Your task to perform on an android device: check the backup settings in the google photos Image 0: 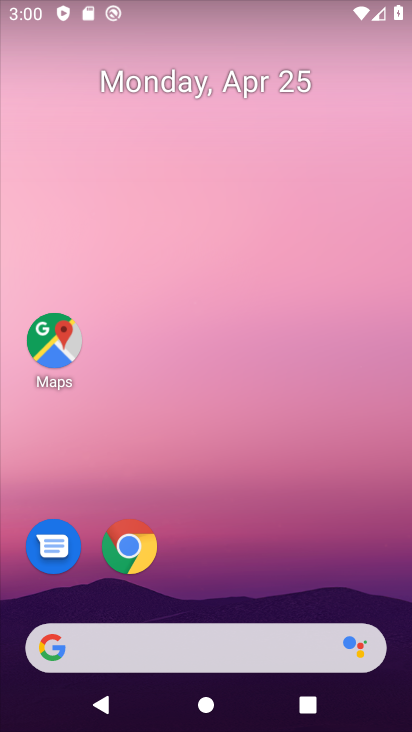
Step 0: drag from (228, 583) to (240, 55)
Your task to perform on an android device: check the backup settings in the google photos Image 1: 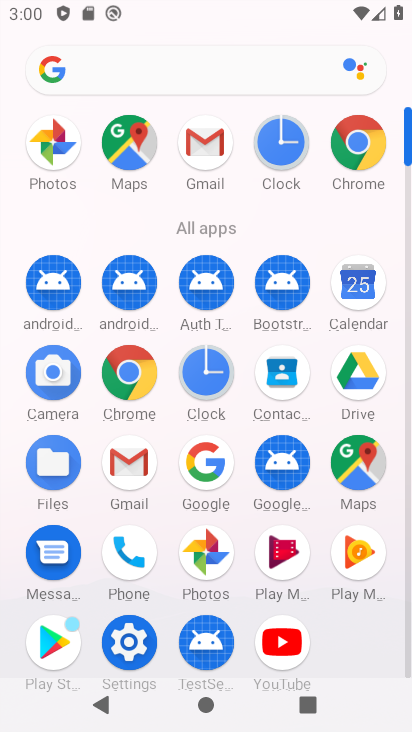
Step 1: click (51, 134)
Your task to perform on an android device: check the backup settings in the google photos Image 2: 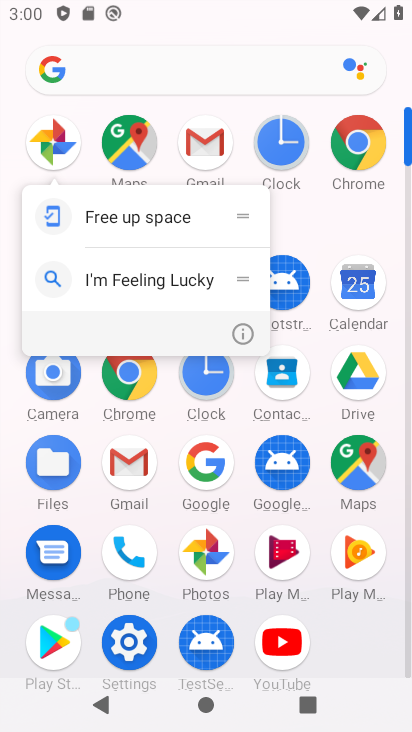
Step 2: click (53, 123)
Your task to perform on an android device: check the backup settings in the google photos Image 3: 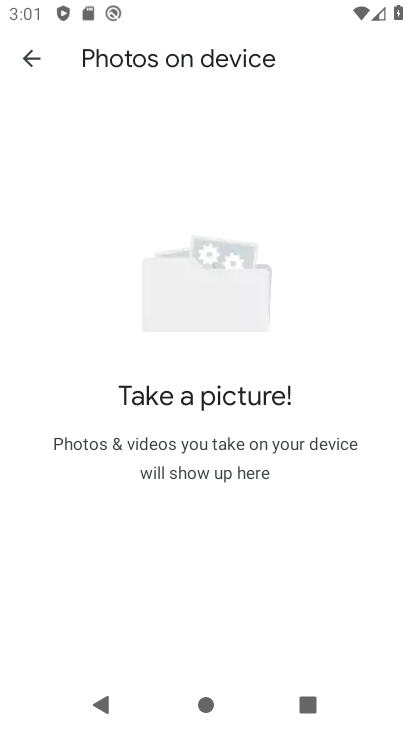
Step 3: click (27, 51)
Your task to perform on an android device: check the backup settings in the google photos Image 4: 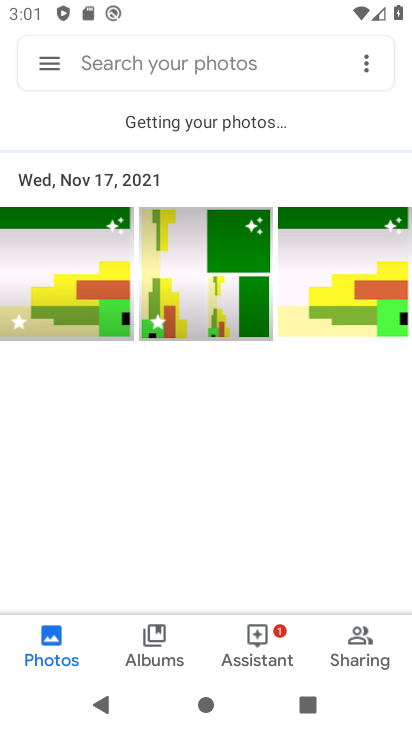
Step 4: click (42, 65)
Your task to perform on an android device: check the backup settings in the google photos Image 5: 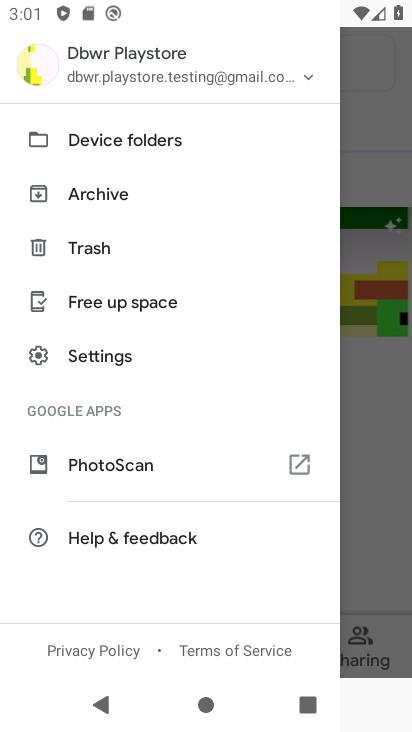
Step 5: click (92, 349)
Your task to perform on an android device: check the backup settings in the google photos Image 6: 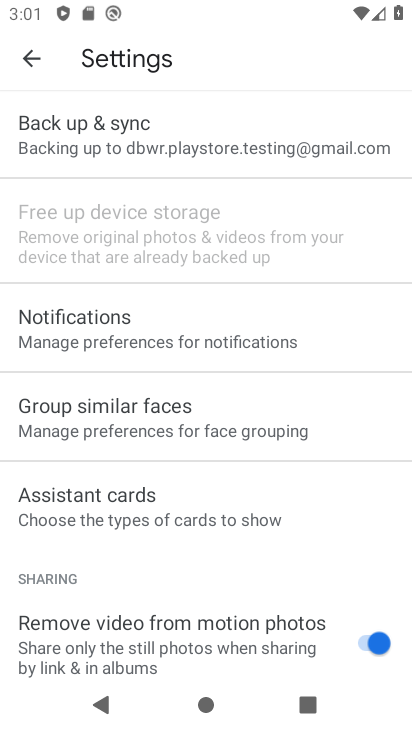
Step 6: click (131, 150)
Your task to perform on an android device: check the backup settings in the google photos Image 7: 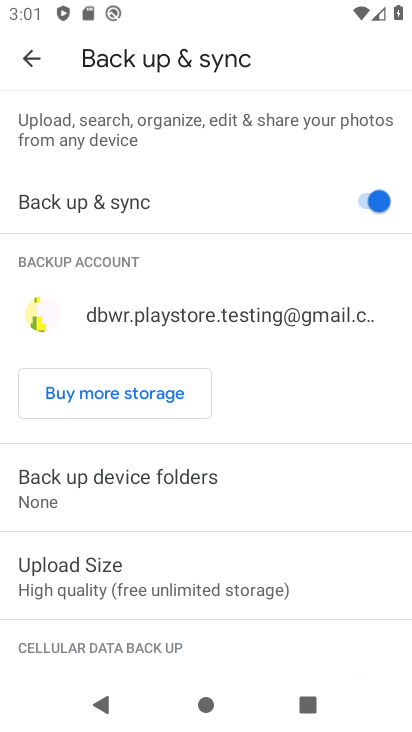
Step 7: task complete